Your task to perform on an android device: make emails show in primary in the gmail app Image 0: 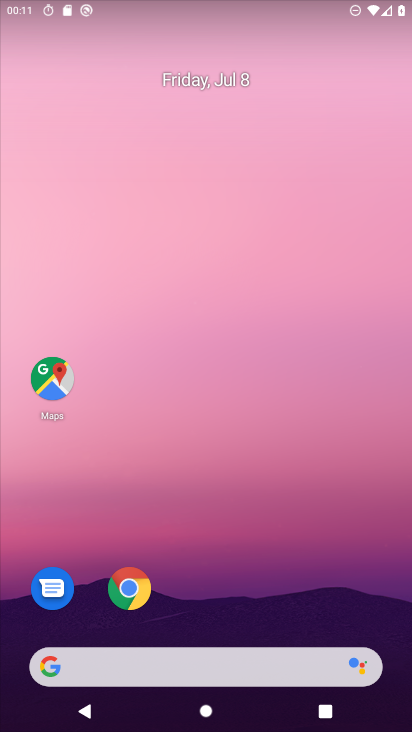
Step 0: drag from (273, 571) to (295, 9)
Your task to perform on an android device: make emails show in primary in the gmail app Image 1: 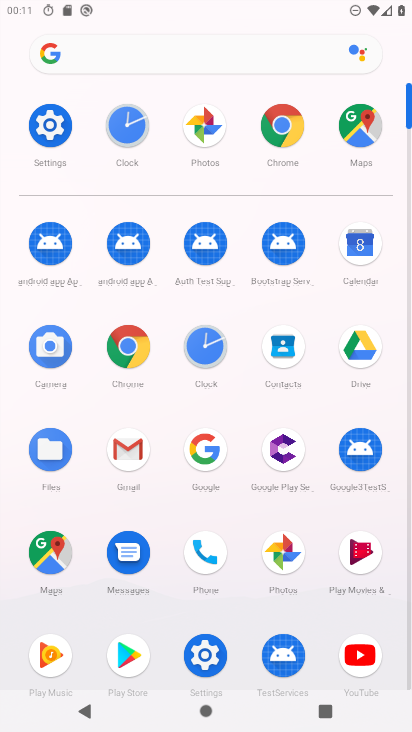
Step 1: click (131, 448)
Your task to perform on an android device: make emails show in primary in the gmail app Image 2: 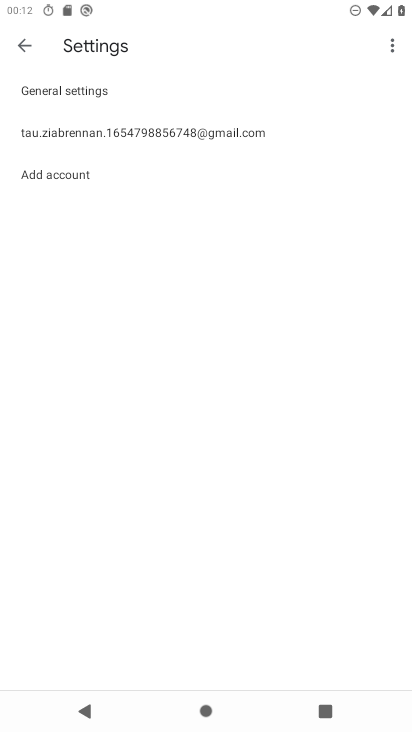
Step 2: click (169, 136)
Your task to perform on an android device: make emails show in primary in the gmail app Image 3: 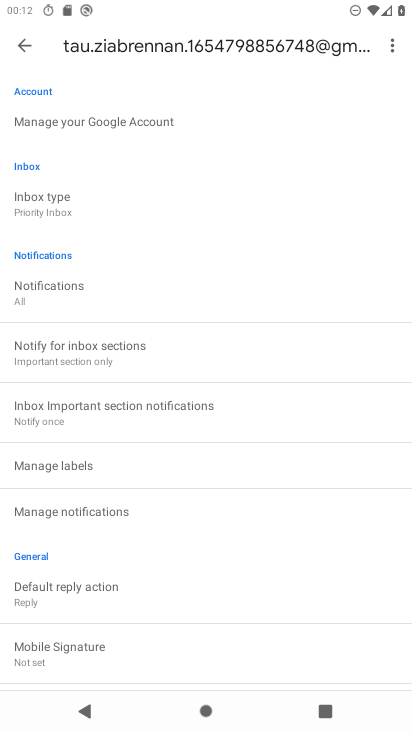
Step 3: click (56, 210)
Your task to perform on an android device: make emails show in primary in the gmail app Image 4: 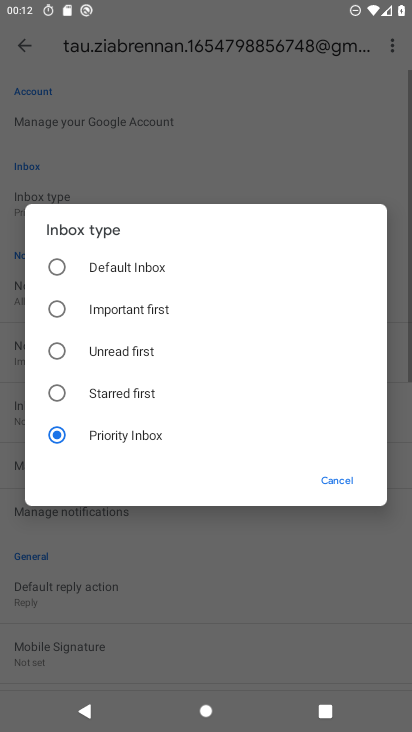
Step 4: click (133, 255)
Your task to perform on an android device: make emails show in primary in the gmail app Image 5: 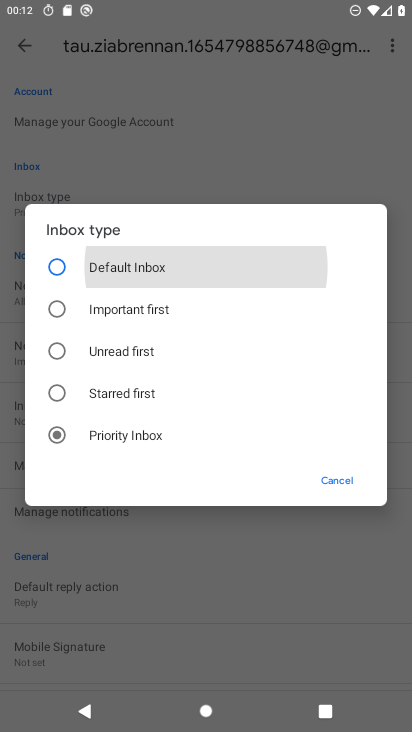
Step 5: click (132, 262)
Your task to perform on an android device: make emails show in primary in the gmail app Image 6: 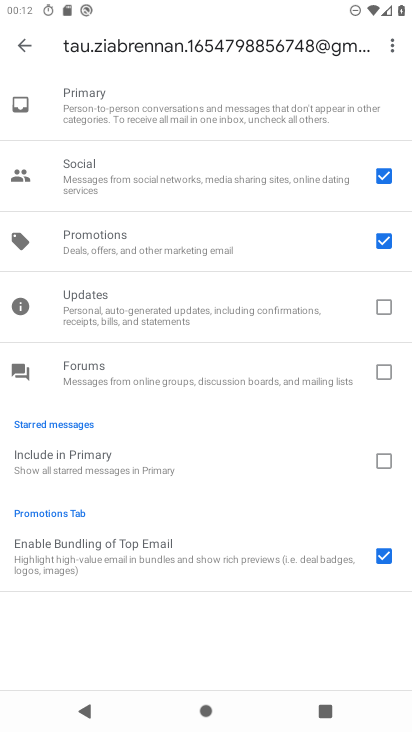
Step 6: task complete